Your task to perform on an android device: allow cookies in the chrome app Image 0: 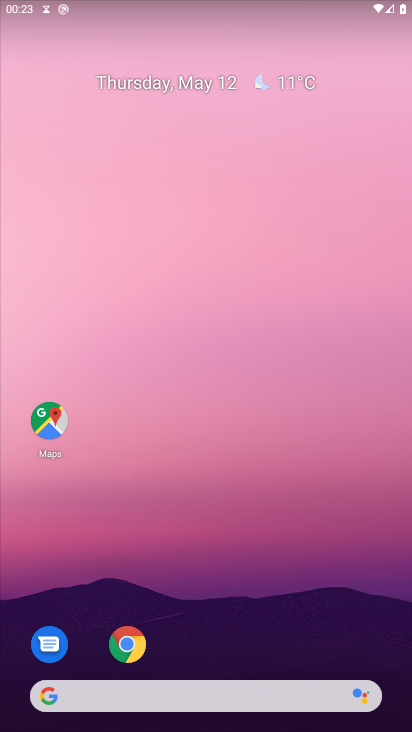
Step 0: click (127, 644)
Your task to perform on an android device: allow cookies in the chrome app Image 1: 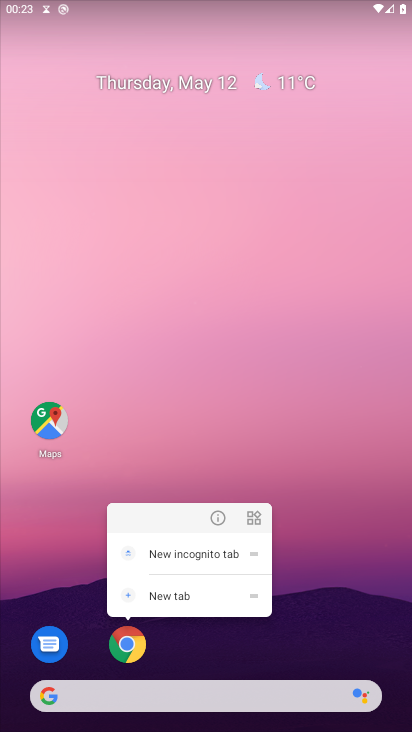
Step 1: click (125, 638)
Your task to perform on an android device: allow cookies in the chrome app Image 2: 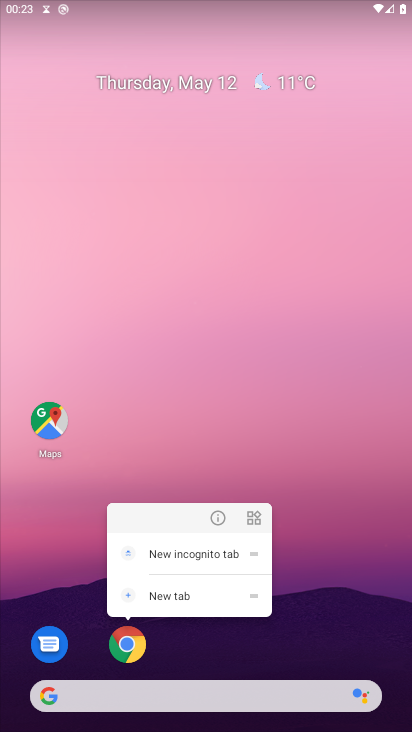
Step 2: click (304, 640)
Your task to perform on an android device: allow cookies in the chrome app Image 3: 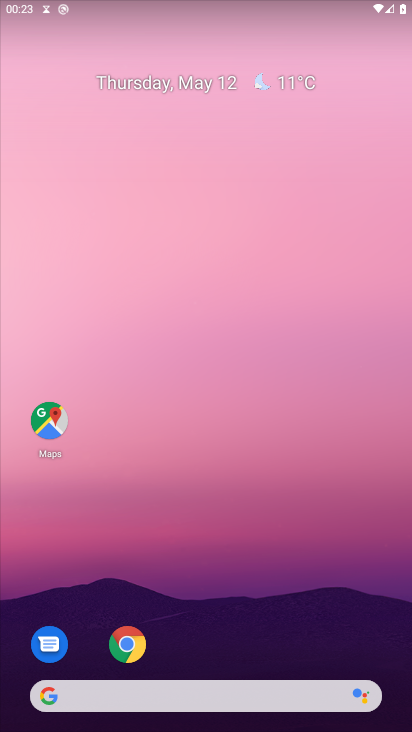
Step 3: click (278, 349)
Your task to perform on an android device: allow cookies in the chrome app Image 4: 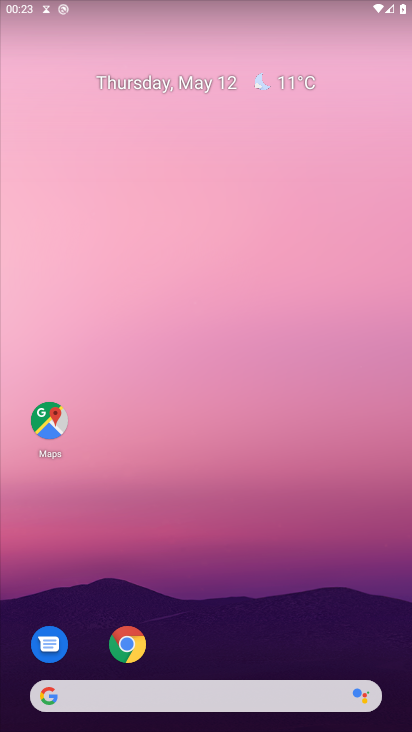
Step 4: click (123, 637)
Your task to perform on an android device: allow cookies in the chrome app Image 5: 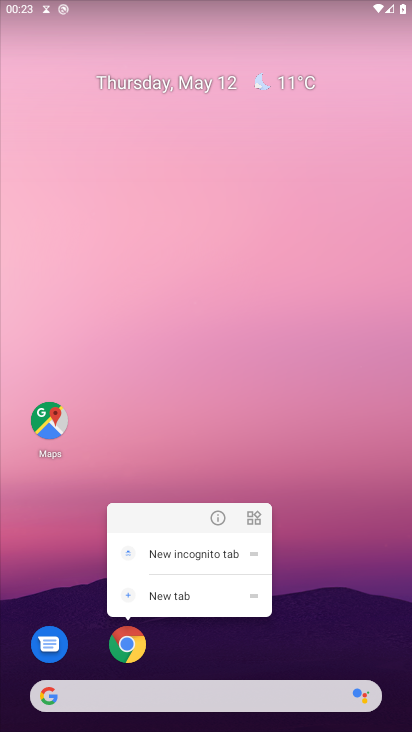
Step 5: click (129, 637)
Your task to perform on an android device: allow cookies in the chrome app Image 6: 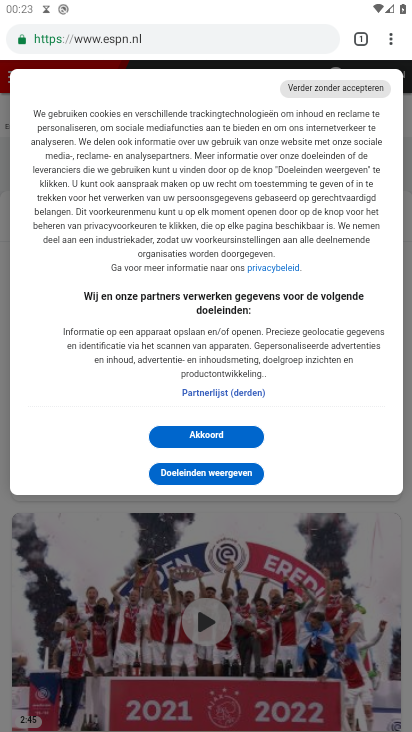
Step 6: click (205, 430)
Your task to perform on an android device: allow cookies in the chrome app Image 7: 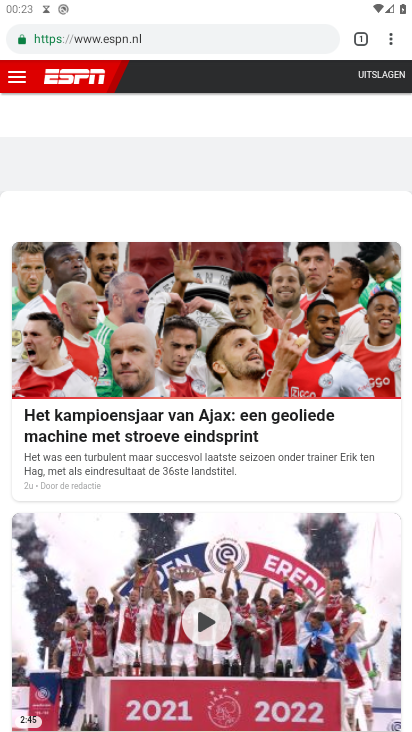
Step 7: click (391, 39)
Your task to perform on an android device: allow cookies in the chrome app Image 8: 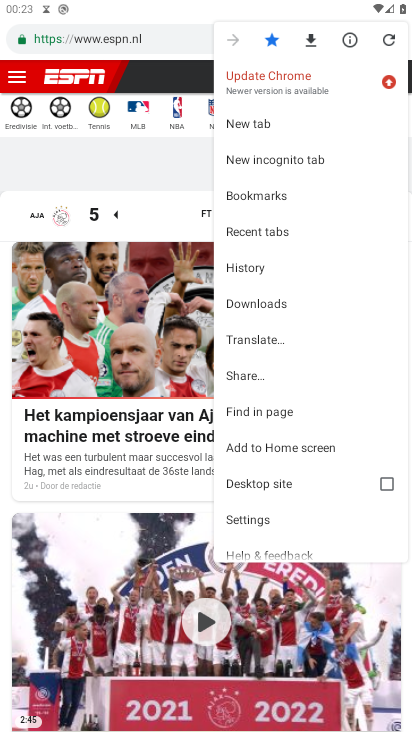
Step 8: click (272, 518)
Your task to perform on an android device: allow cookies in the chrome app Image 9: 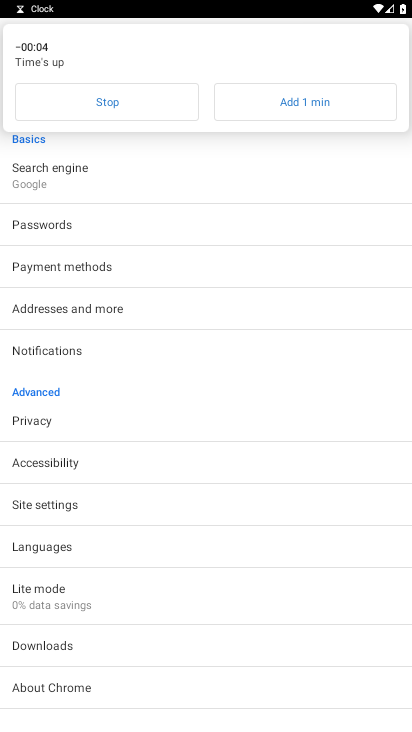
Step 9: click (107, 101)
Your task to perform on an android device: allow cookies in the chrome app Image 10: 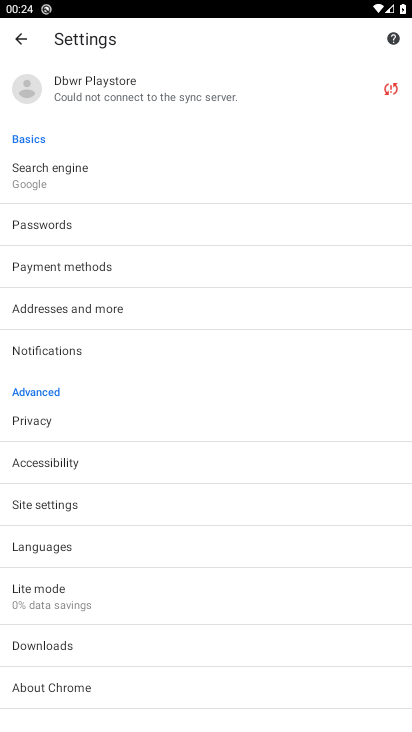
Step 10: click (87, 505)
Your task to perform on an android device: allow cookies in the chrome app Image 11: 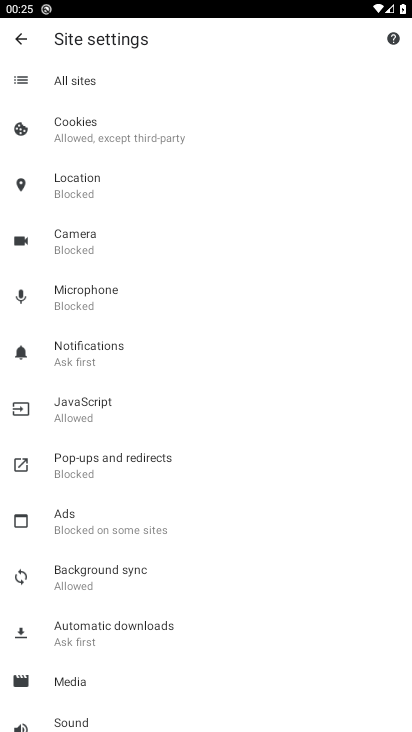
Step 11: click (106, 133)
Your task to perform on an android device: allow cookies in the chrome app Image 12: 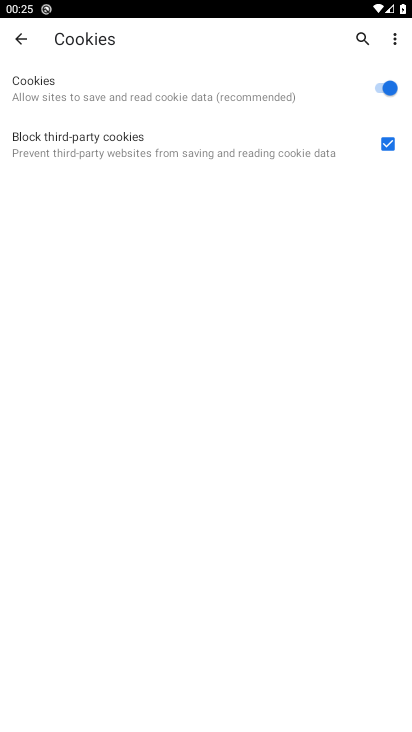
Step 12: task complete